Your task to perform on an android device: Open Wikipedia Image 0: 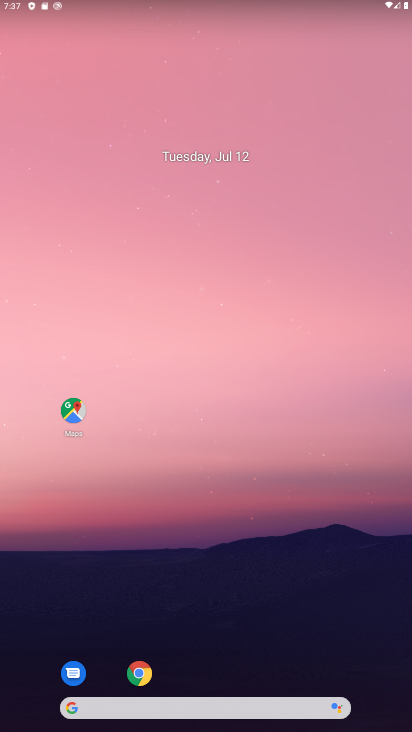
Step 0: click (143, 673)
Your task to perform on an android device: Open Wikipedia Image 1: 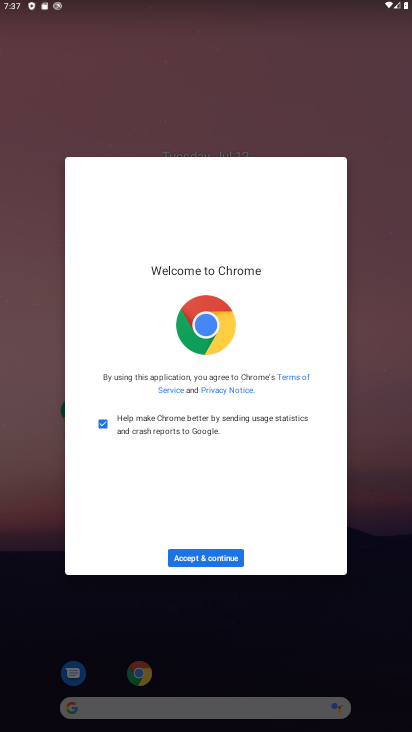
Step 1: click (198, 559)
Your task to perform on an android device: Open Wikipedia Image 2: 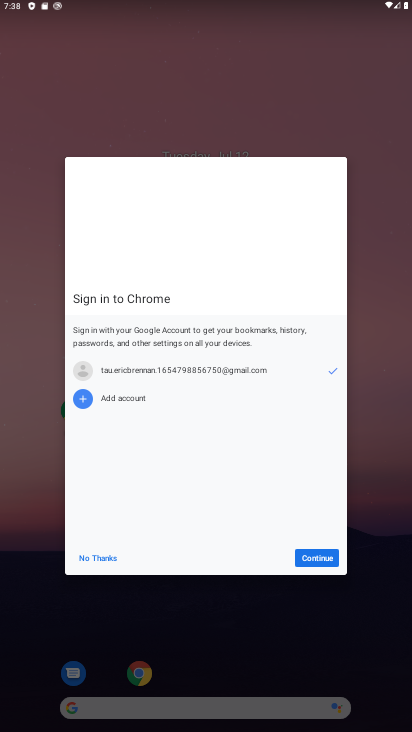
Step 2: click (310, 555)
Your task to perform on an android device: Open Wikipedia Image 3: 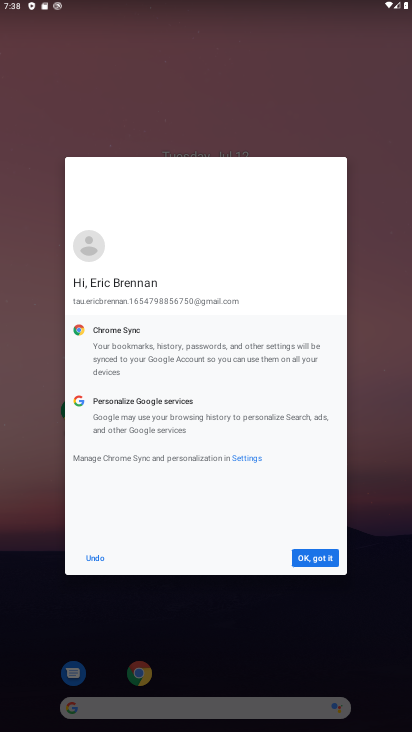
Step 3: click (310, 555)
Your task to perform on an android device: Open Wikipedia Image 4: 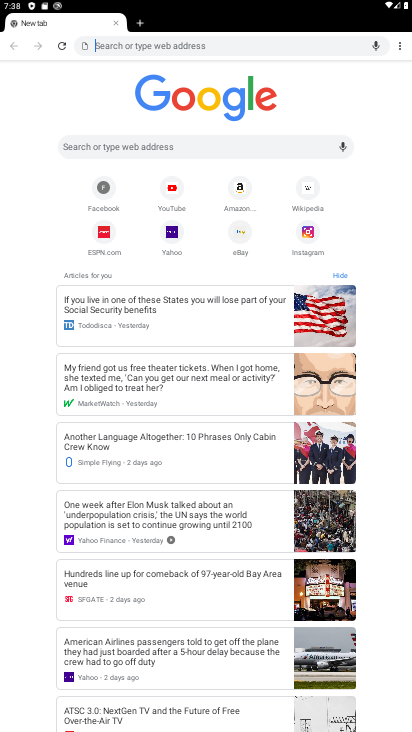
Step 4: click (307, 188)
Your task to perform on an android device: Open Wikipedia Image 5: 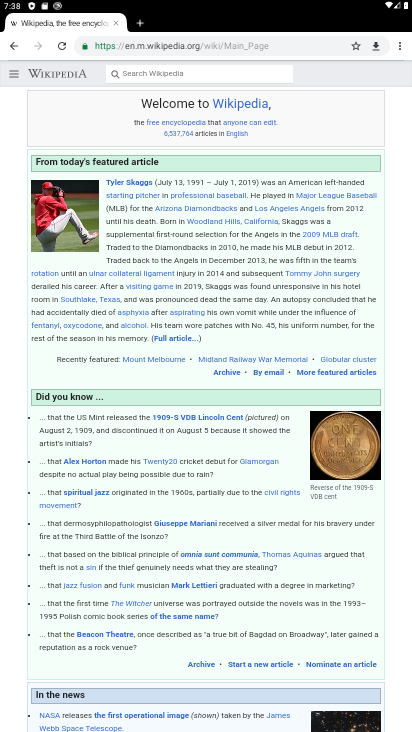
Step 5: task complete